Your task to perform on an android device: Go to calendar. Show me events next week Image 0: 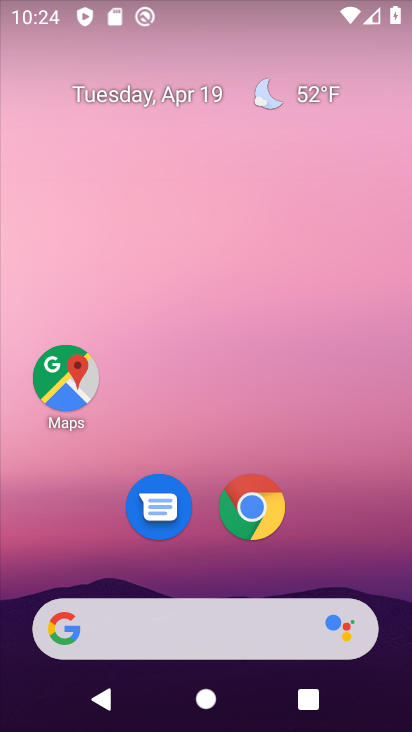
Step 0: drag from (363, 537) to (356, 117)
Your task to perform on an android device: Go to calendar. Show me events next week Image 1: 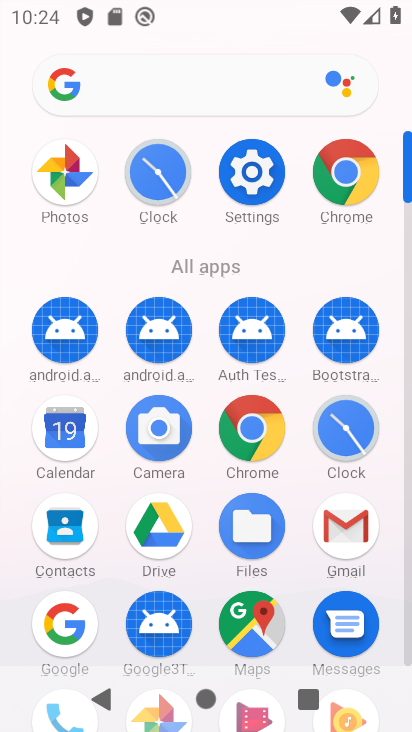
Step 1: click (71, 436)
Your task to perform on an android device: Go to calendar. Show me events next week Image 2: 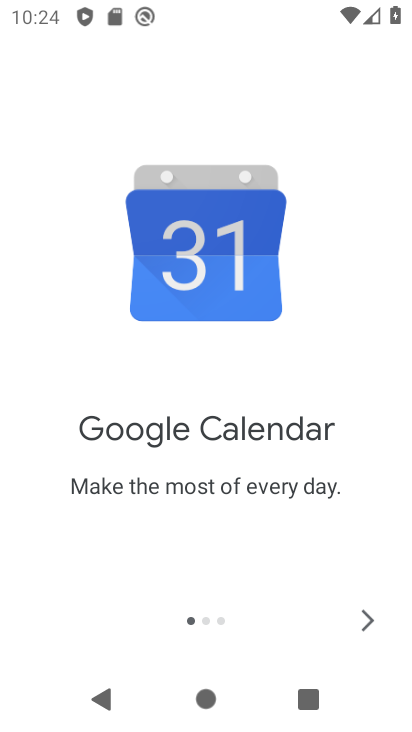
Step 2: click (359, 615)
Your task to perform on an android device: Go to calendar. Show me events next week Image 3: 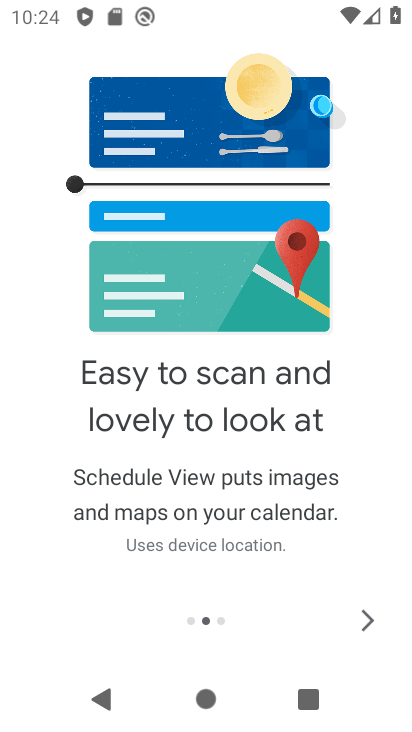
Step 3: click (349, 618)
Your task to perform on an android device: Go to calendar. Show me events next week Image 4: 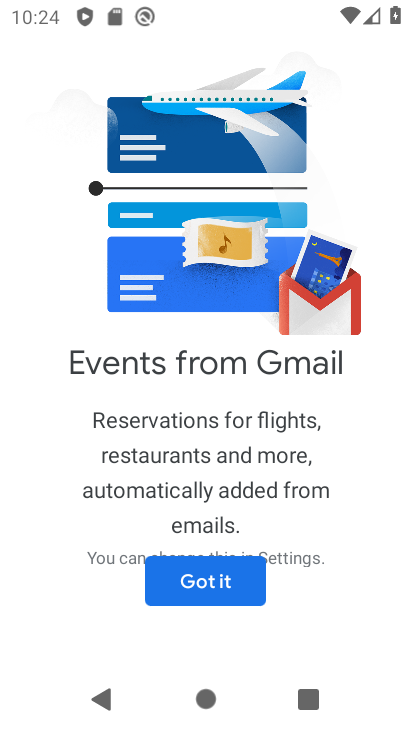
Step 4: click (223, 585)
Your task to perform on an android device: Go to calendar. Show me events next week Image 5: 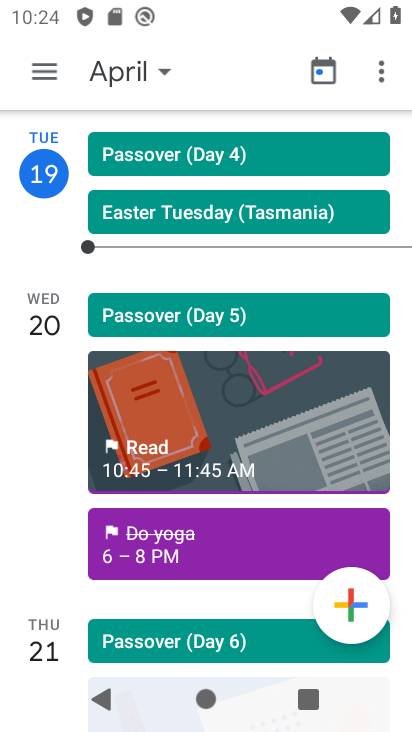
Step 5: click (165, 66)
Your task to perform on an android device: Go to calendar. Show me events next week Image 6: 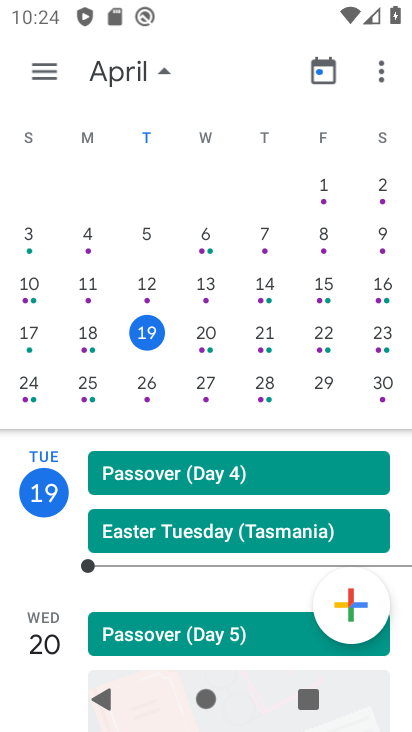
Step 6: click (147, 388)
Your task to perform on an android device: Go to calendar. Show me events next week Image 7: 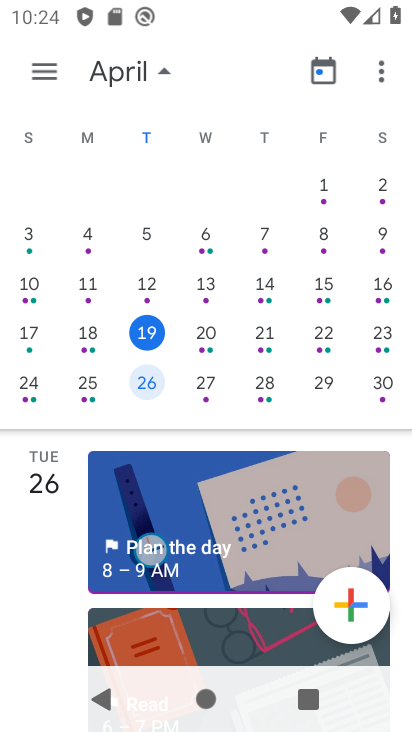
Step 7: task complete